Your task to perform on an android device: Open calendar and show me the third week of next month Image 0: 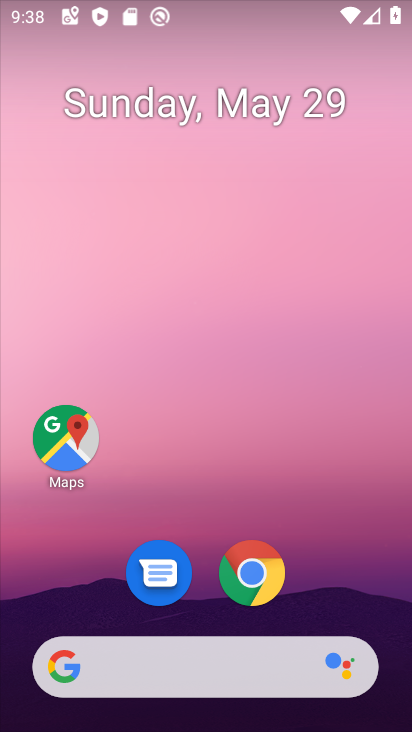
Step 0: drag from (351, 578) to (249, 48)
Your task to perform on an android device: Open calendar and show me the third week of next month Image 1: 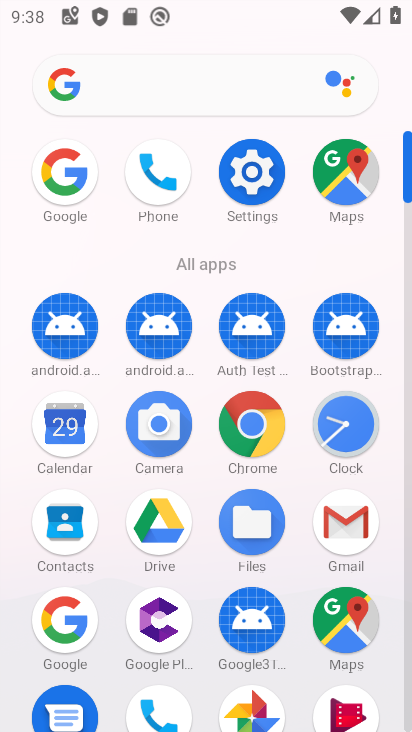
Step 1: click (56, 420)
Your task to perform on an android device: Open calendar and show me the third week of next month Image 2: 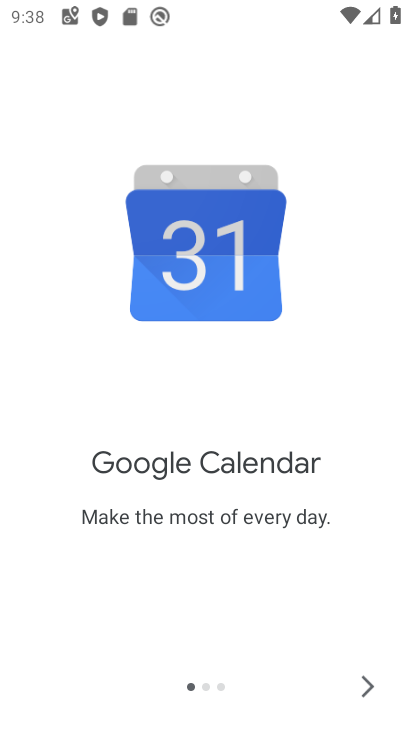
Step 2: click (368, 688)
Your task to perform on an android device: Open calendar and show me the third week of next month Image 3: 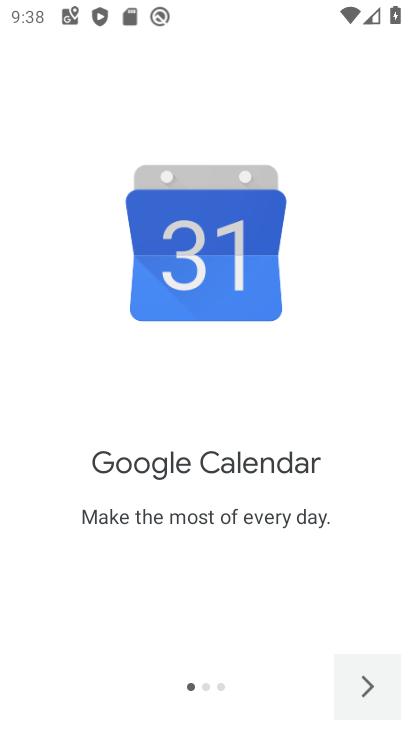
Step 3: click (368, 688)
Your task to perform on an android device: Open calendar and show me the third week of next month Image 4: 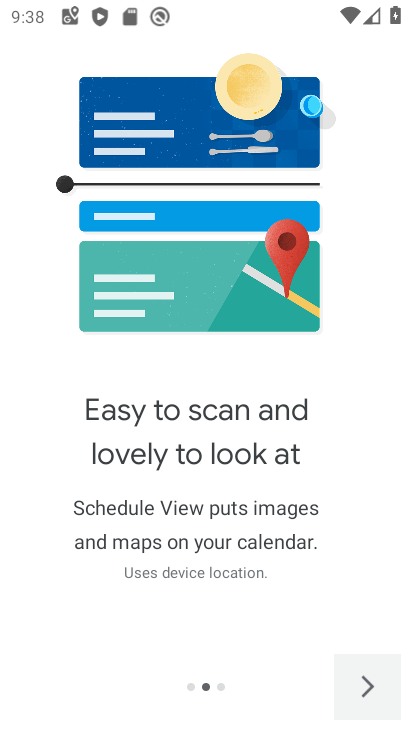
Step 4: click (368, 688)
Your task to perform on an android device: Open calendar and show me the third week of next month Image 5: 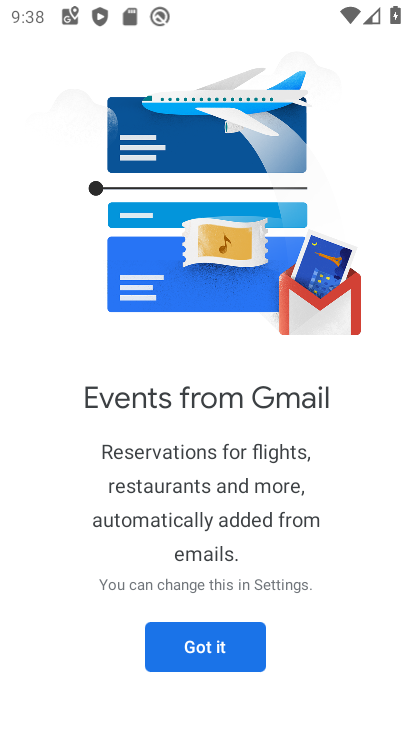
Step 5: click (219, 658)
Your task to perform on an android device: Open calendar and show me the third week of next month Image 6: 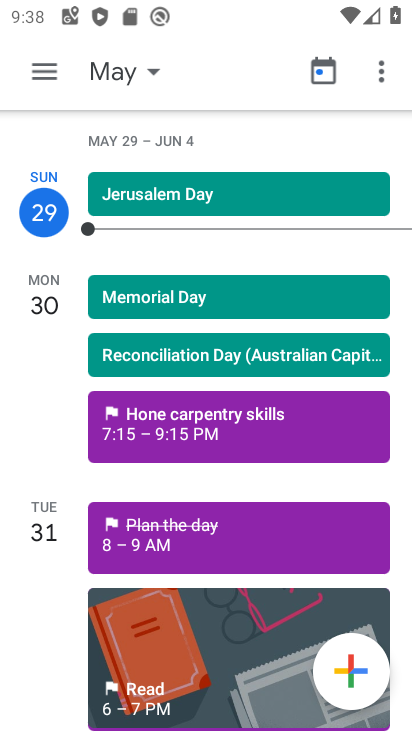
Step 6: click (135, 76)
Your task to perform on an android device: Open calendar and show me the third week of next month Image 7: 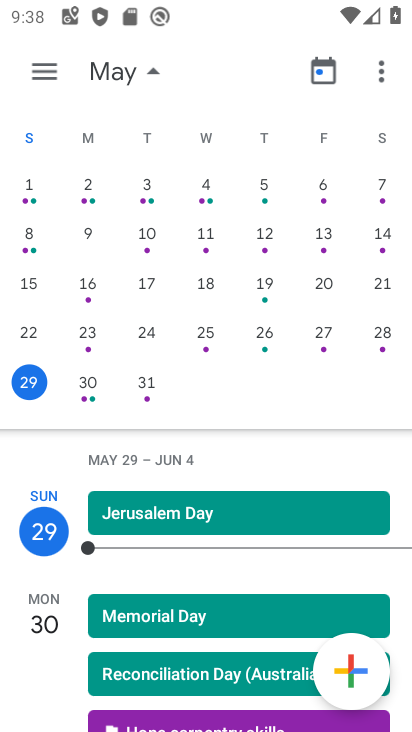
Step 7: drag from (351, 287) to (2, 328)
Your task to perform on an android device: Open calendar and show me the third week of next month Image 8: 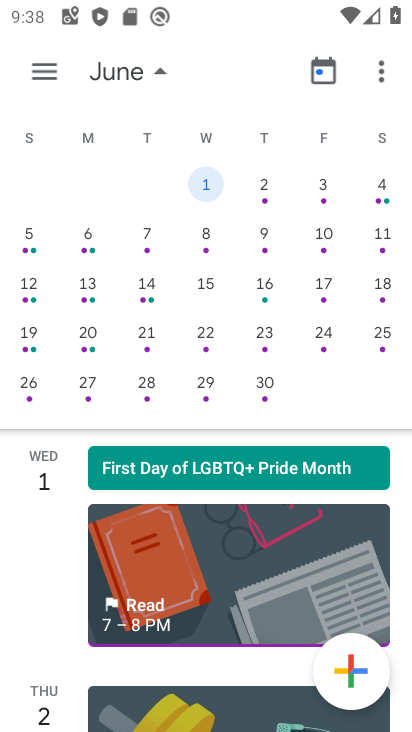
Step 8: click (35, 291)
Your task to perform on an android device: Open calendar and show me the third week of next month Image 9: 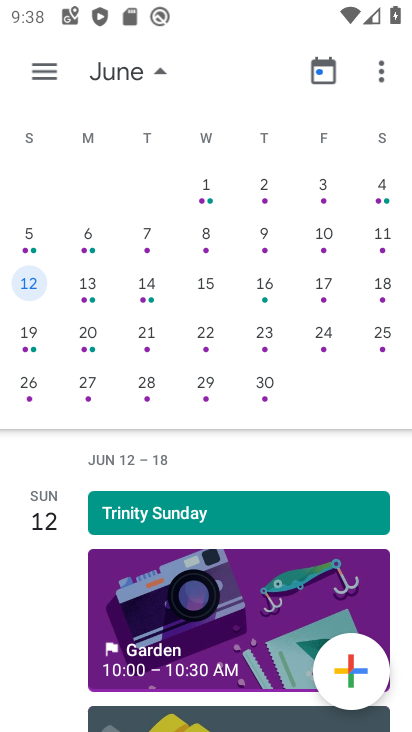
Step 9: task complete